Your task to perform on an android device: Go to CNN.com Image 0: 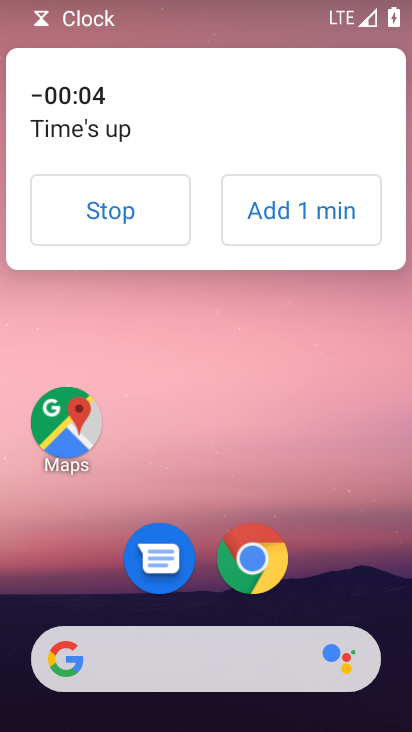
Step 0: click (174, 217)
Your task to perform on an android device: Go to CNN.com Image 1: 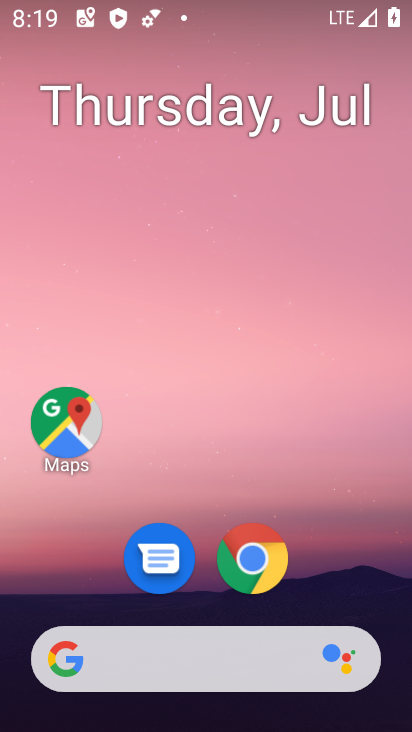
Step 1: drag from (206, 682) to (257, 292)
Your task to perform on an android device: Go to CNN.com Image 2: 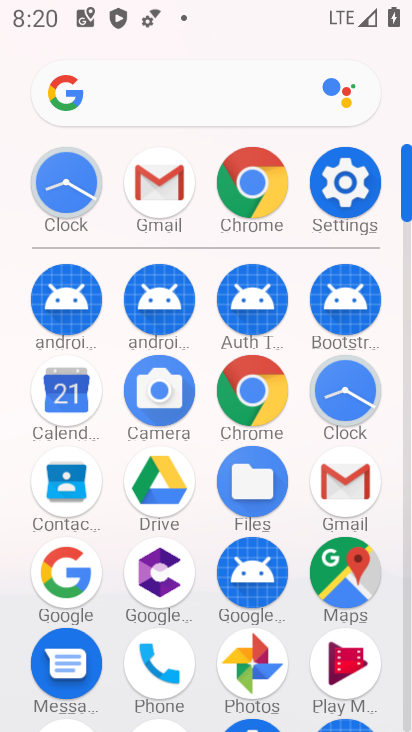
Step 2: click (251, 400)
Your task to perform on an android device: Go to CNN.com Image 3: 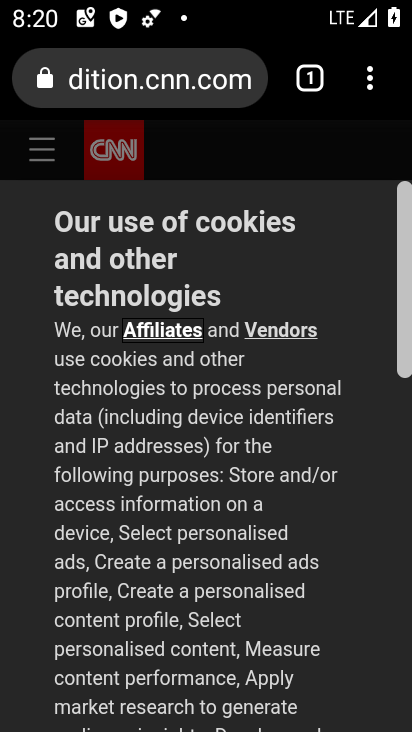
Step 3: task complete